Your task to perform on an android device: turn on bluetooth scan Image 0: 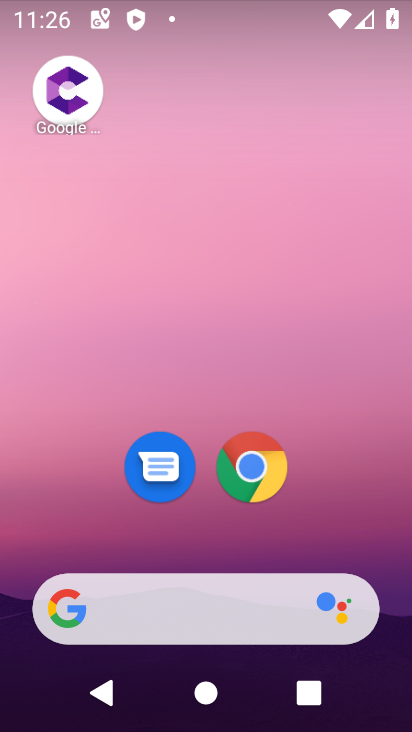
Step 0: press home button
Your task to perform on an android device: turn on bluetooth scan Image 1: 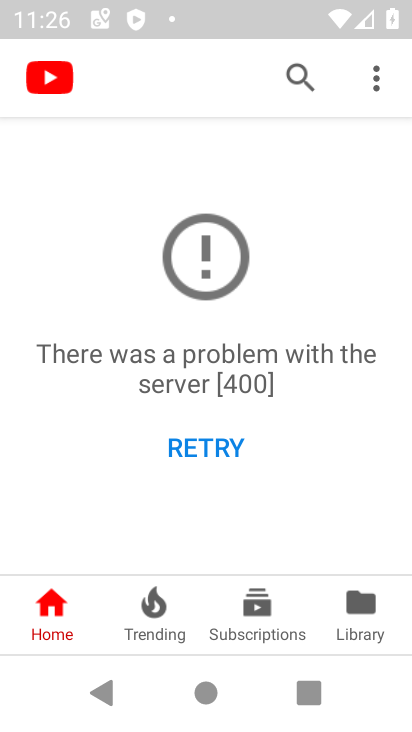
Step 1: drag from (249, 533) to (237, 491)
Your task to perform on an android device: turn on bluetooth scan Image 2: 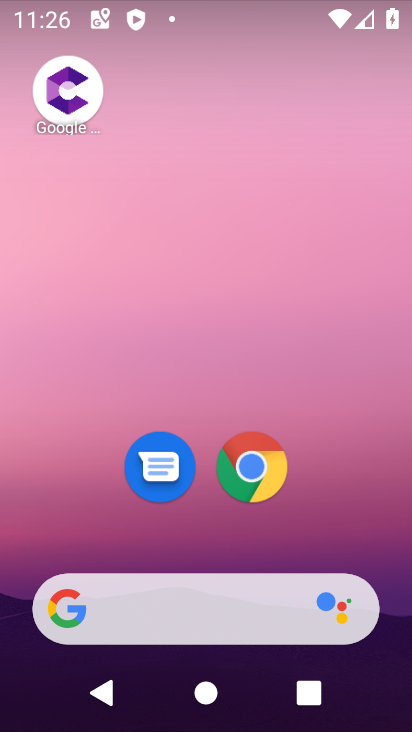
Step 2: drag from (224, 529) to (200, 233)
Your task to perform on an android device: turn on bluetooth scan Image 3: 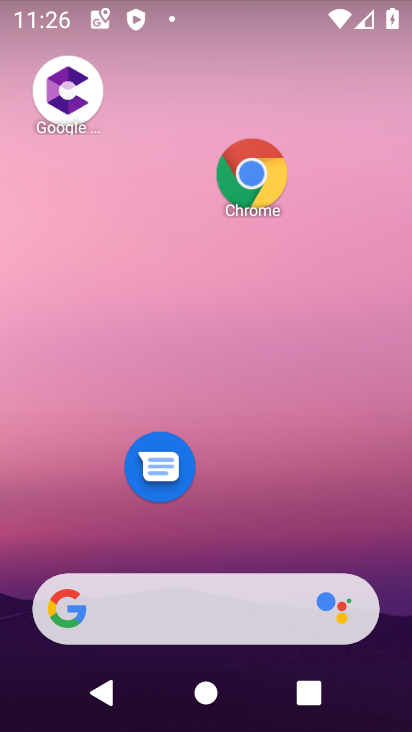
Step 3: drag from (285, 509) to (164, 25)
Your task to perform on an android device: turn on bluetooth scan Image 4: 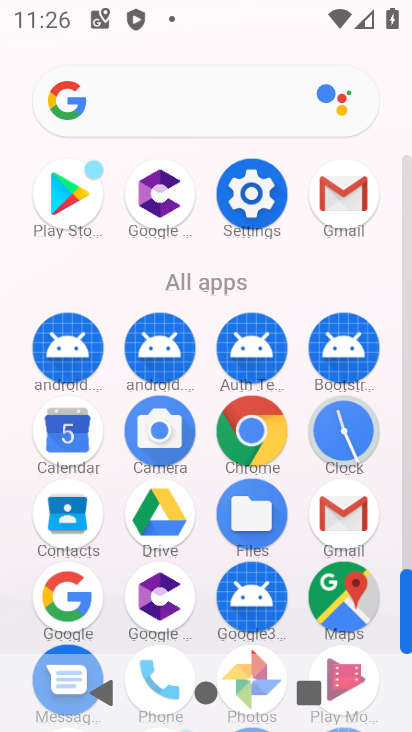
Step 4: click (266, 181)
Your task to perform on an android device: turn on bluetooth scan Image 5: 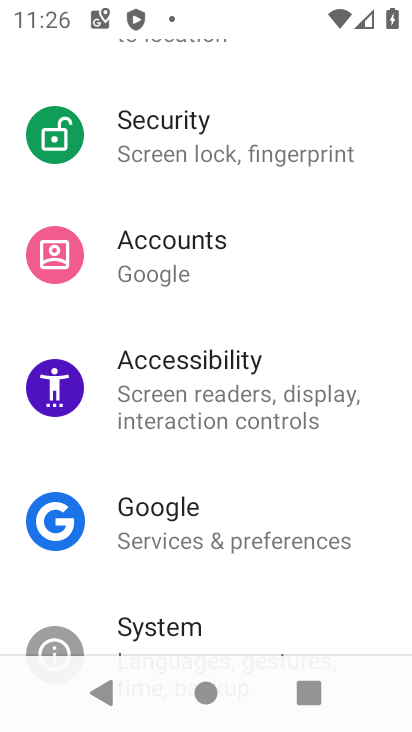
Step 5: drag from (302, 547) to (253, 47)
Your task to perform on an android device: turn on bluetooth scan Image 6: 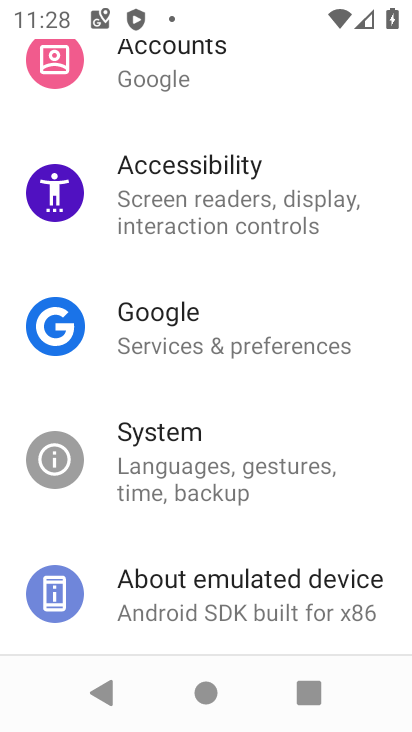
Step 6: drag from (185, 213) to (266, 621)
Your task to perform on an android device: turn on bluetooth scan Image 7: 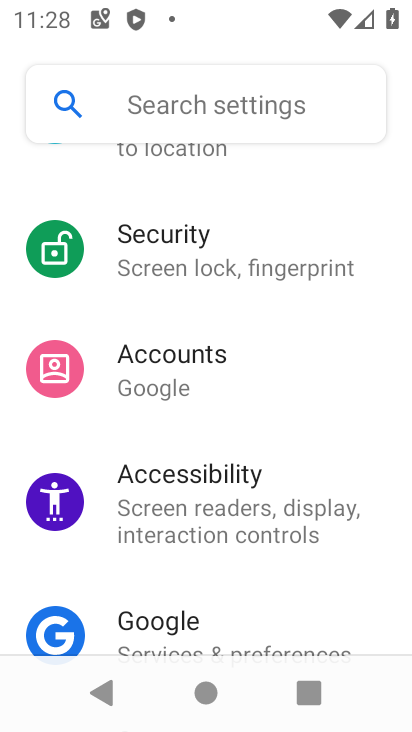
Step 7: drag from (200, 259) to (194, 635)
Your task to perform on an android device: turn on bluetooth scan Image 8: 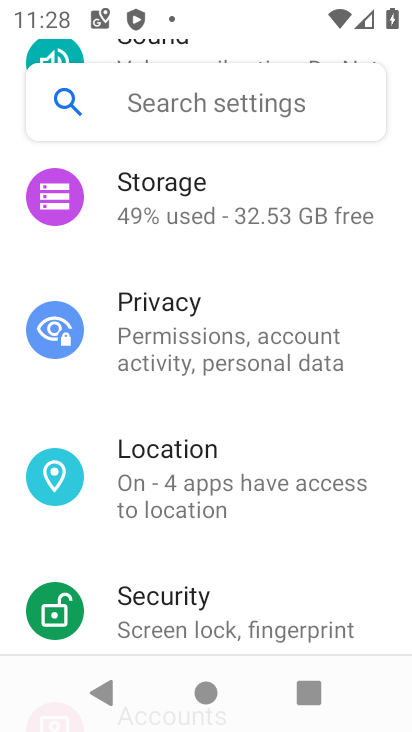
Step 8: click (176, 472)
Your task to perform on an android device: turn on bluetooth scan Image 9: 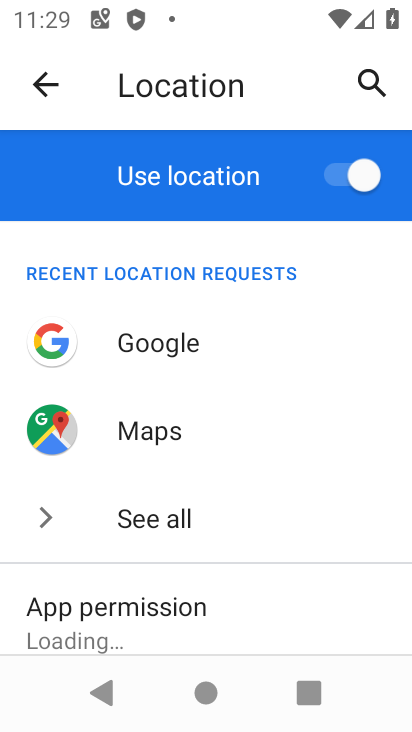
Step 9: drag from (287, 559) to (296, 4)
Your task to perform on an android device: turn on bluetooth scan Image 10: 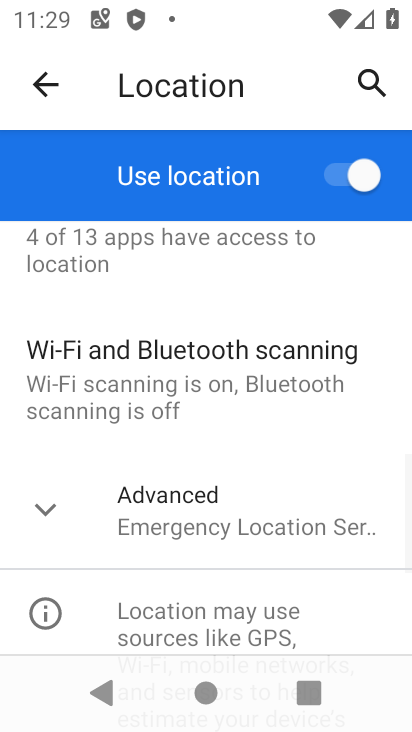
Step 10: click (268, 416)
Your task to perform on an android device: turn on bluetooth scan Image 11: 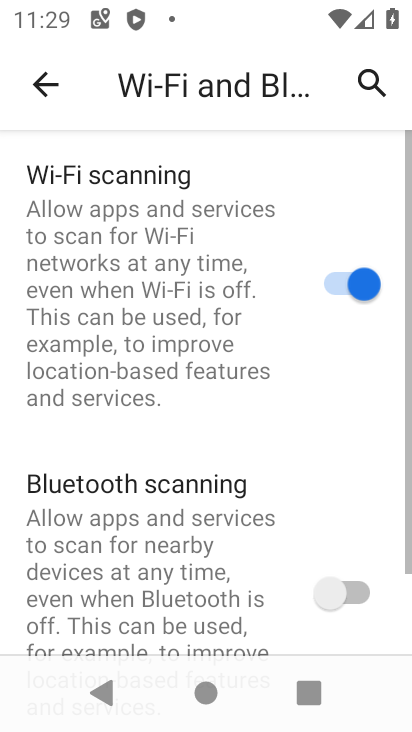
Step 11: click (285, 580)
Your task to perform on an android device: turn on bluetooth scan Image 12: 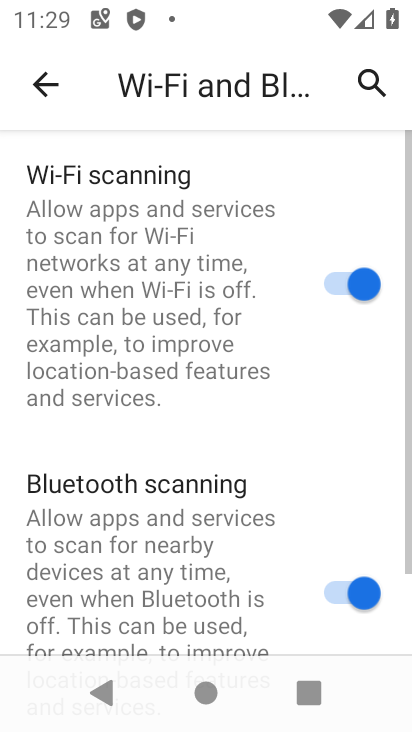
Step 12: task complete